Your task to perform on an android device: Open calendar and show me the second week of next month Image 0: 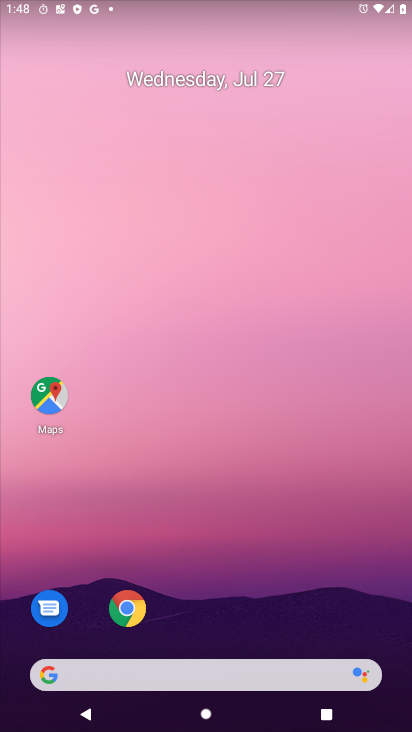
Step 0: drag from (179, 607) to (178, 88)
Your task to perform on an android device: Open calendar and show me the second week of next month Image 1: 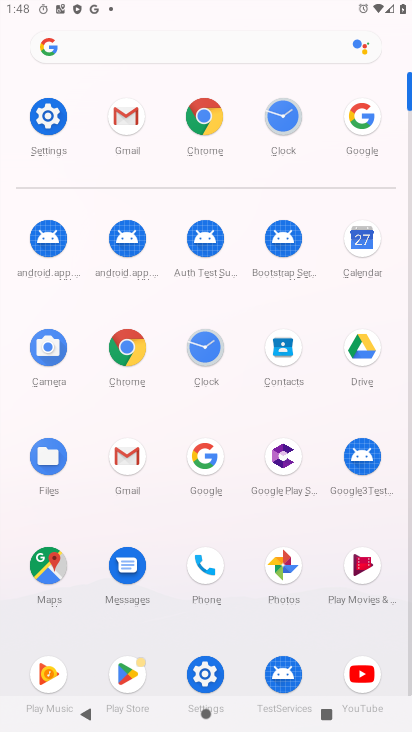
Step 1: click (367, 246)
Your task to perform on an android device: Open calendar and show me the second week of next month Image 2: 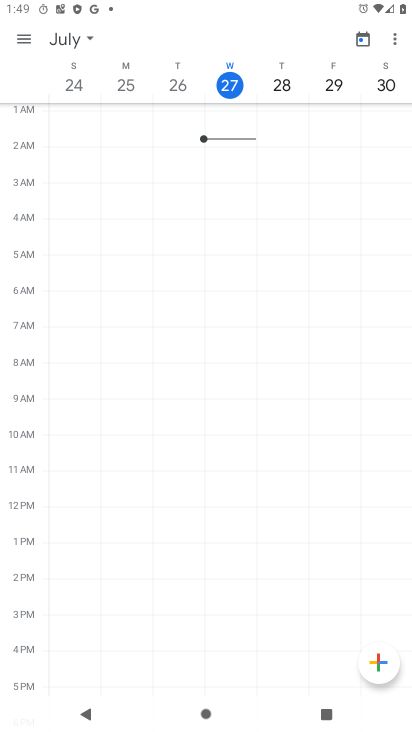
Step 2: click (68, 30)
Your task to perform on an android device: Open calendar and show me the second week of next month Image 3: 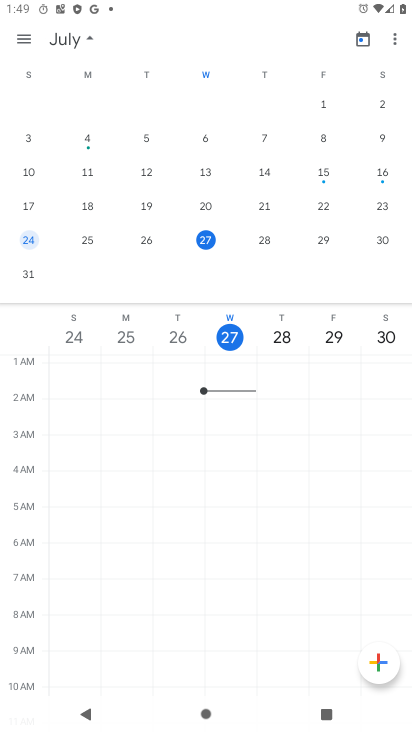
Step 3: drag from (339, 200) to (61, 186)
Your task to perform on an android device: Open calendar and show me the second week of next month Image 4: 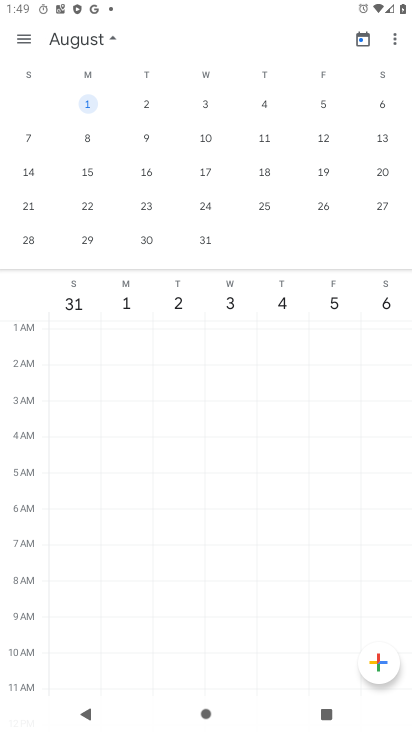
Step 4: click (26, 139)
Your task to perform on an android device: Open calendar and show me the second week of next month Image 5: 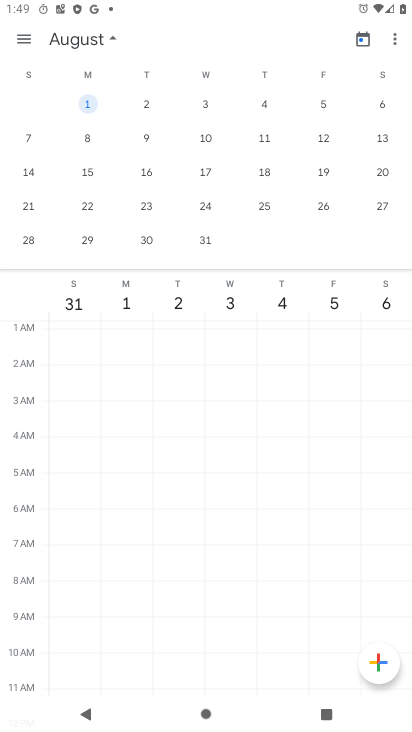
Step 5: click (26, 139)
Your task to perform on an android device: Open calendar and show me the second week of next month Image 6: 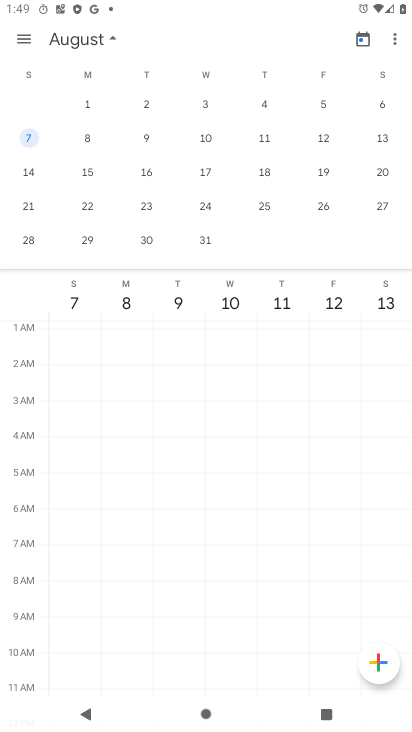
Step 6: task complete